Your task to perform on an android device: refresh tabs in the chrome app Image 0: 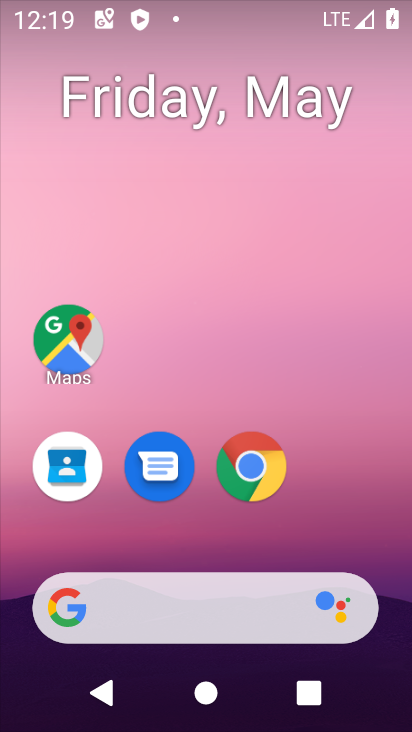
Step 0: click (243, 460)
Your task to perform on an android device: refresh tabs in the chrome app Image 1: 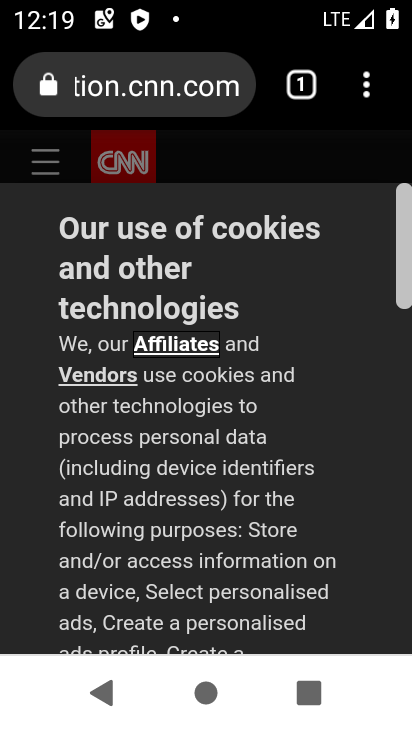
Step 1: click (366, 92)
Your task to perform on an android device: refresh tabs in the chrome app Image 2: 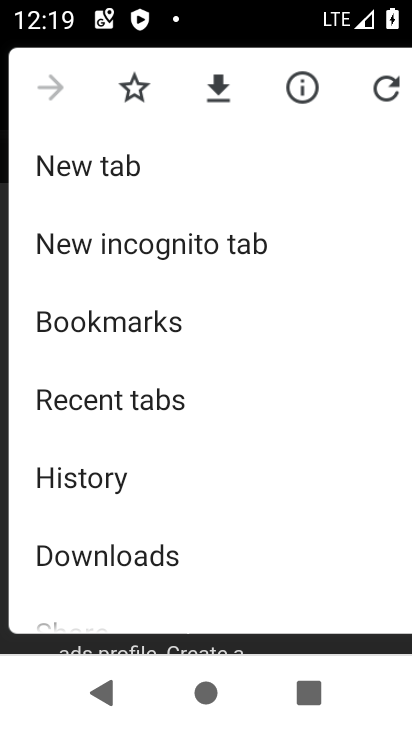
Step 2: click (391, 106)
Your task to perform on an android device: refresh tabs in the chrome app Image 3: 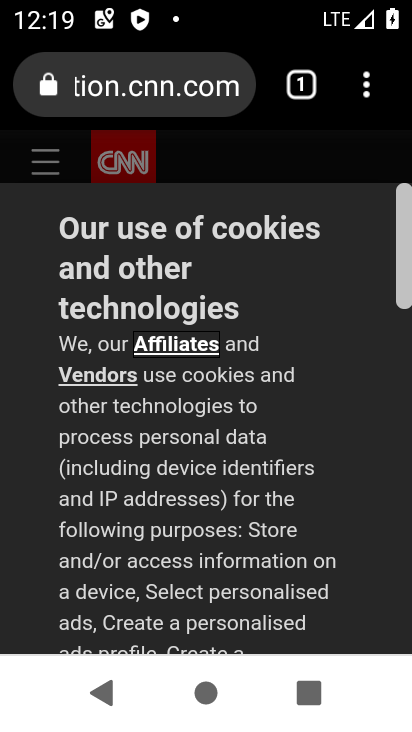
Step 3: task complete